Your task to perform on an android device: show emergency info Image 0: 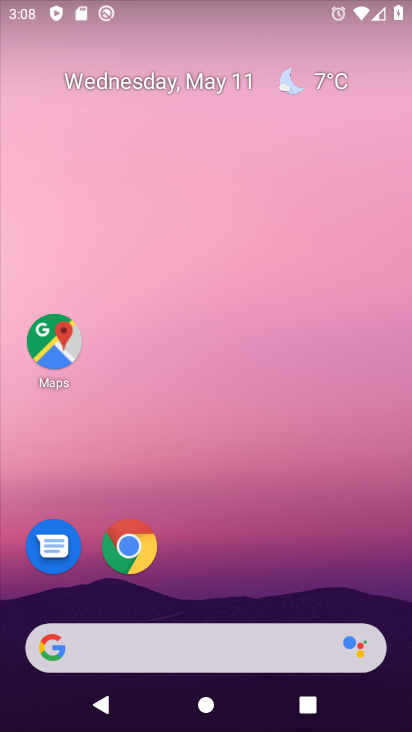
Step 0: drag from (254, 668) to (207, 55)
Your task to perform on an android device: show emergency info Image 1: 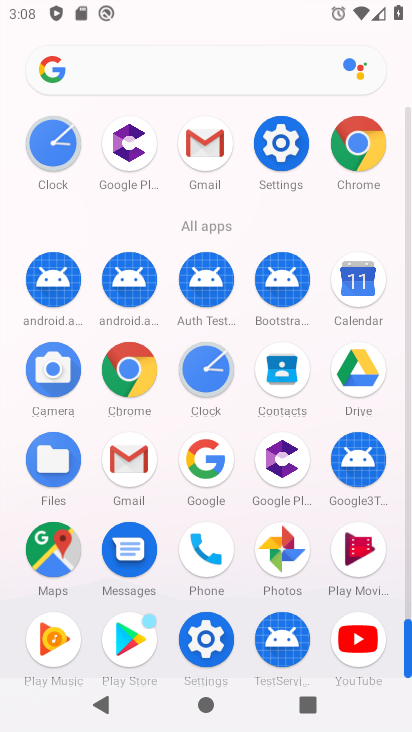
Step 1: click (268, 136)
Your task to perform on an android device: show emergency info Image 2: 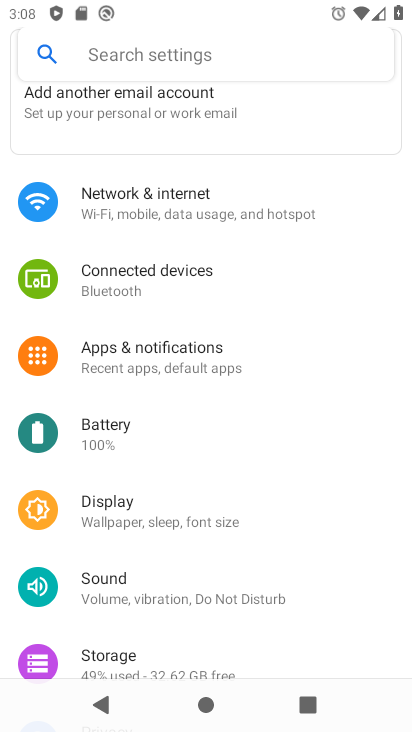
Step 2: drag from (245, 643) to (249, 150)
Your task to perform on an android device: show emergency info Image 3: 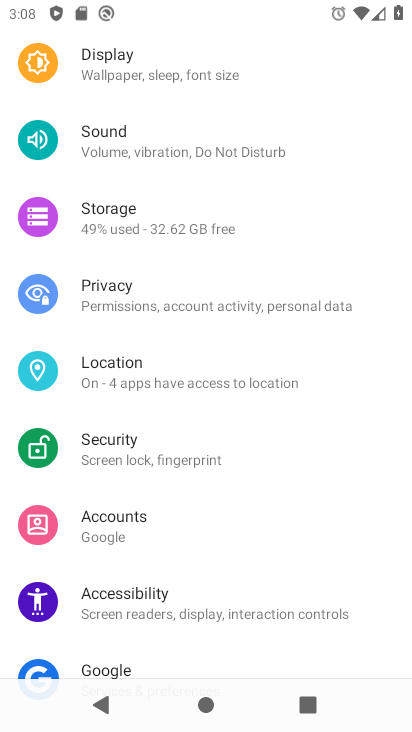
Step 3: drag from (241, 635) to (227, 104)
Your task to perform on an android device: show emergency info Image 4: 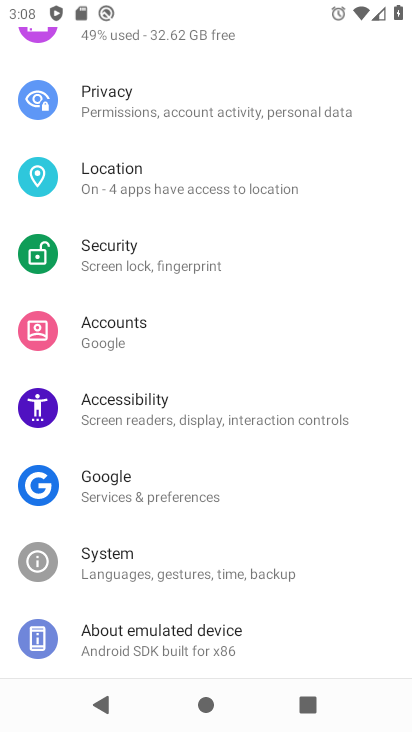
Step 4: click (212, 655)
Your task to perform on an android device: show emergency info Image 5: 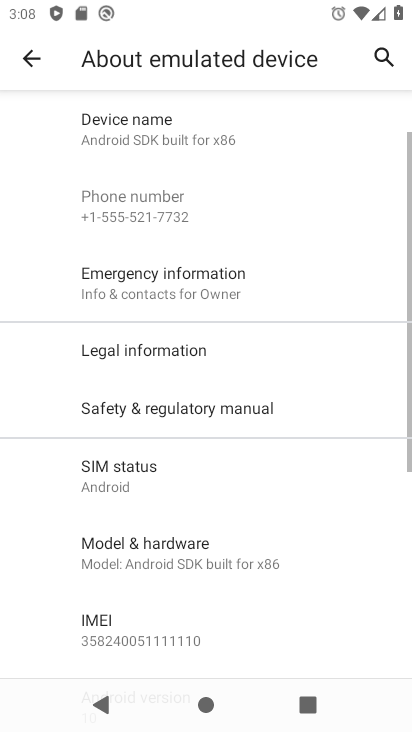
Step 5: drag from (212, 655) to (209, 552)
Your task to perform on an android device: show emergency info Image 6: 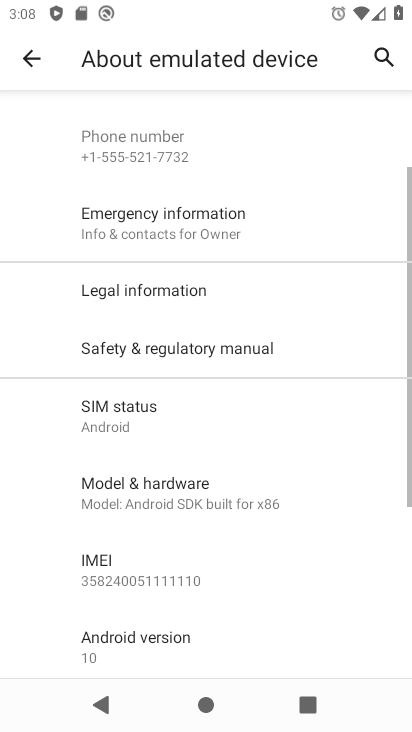
Step 6: click (205, 234)
Your task to perform on an android device: show emergency info Image 7: 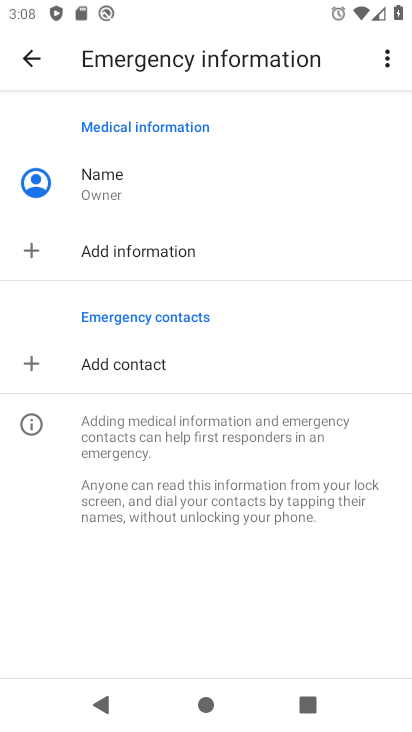
Step 7: task complete